Your task to perform on an android device: Open the phone app and click the voicemail tab. Image 0: 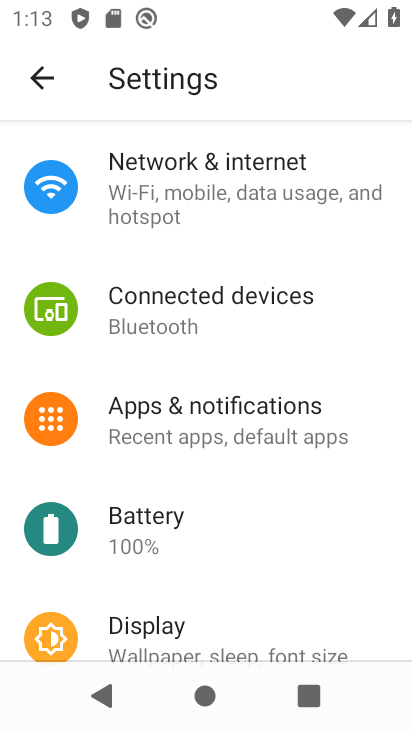
Step 0: press home button
Your task to perform on an android device: Open the phone app and click the voicemail tab. Image 1: 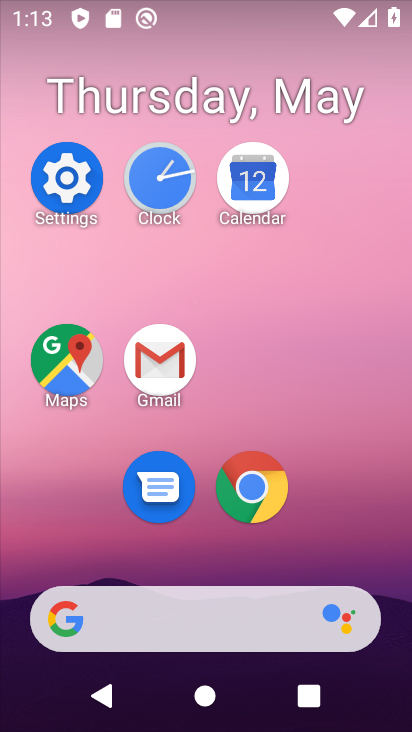
Step 1: drag from (230, 559) to (273, 150)
Your task to perform on an android device: Open the phone app and click the voicemail tab. Image 2: 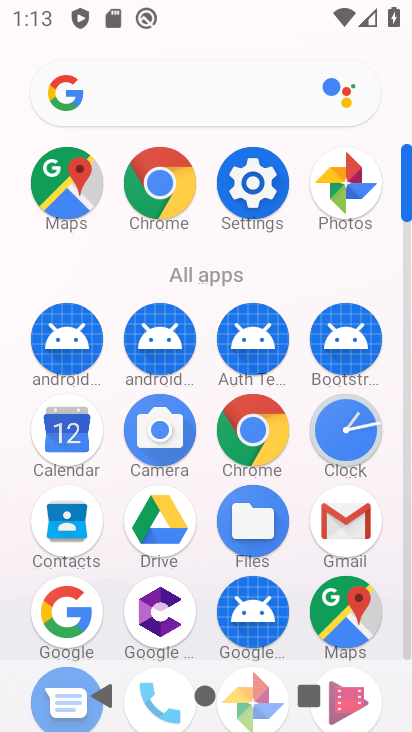
Step 2: drag from (198, 556) to (231, 232)
Your task to perform on an android device: Open the phone app and click the voicemail tab. Image 3: 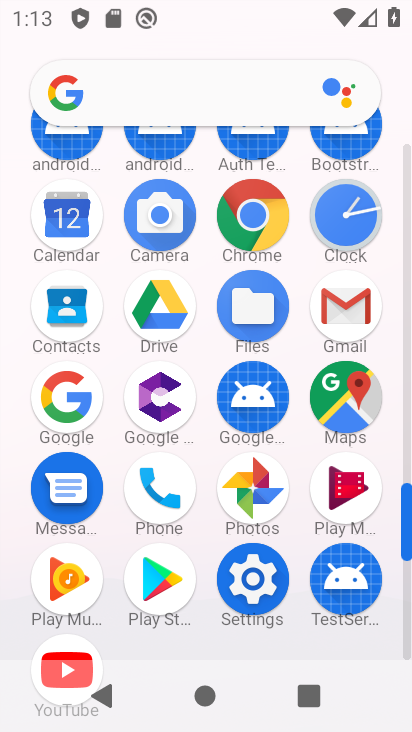
Step 3: click (157, 499)
Your task to perform on an android device: Open the phone app and click the voicemail tab. Image 4: 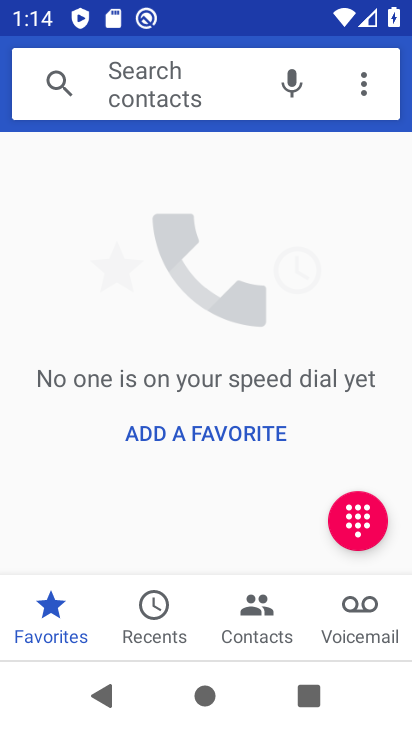
Step 4: click (362, 617)
Your task to perform on an android device: Open the phone app and click the voicemail tab. Image 5: 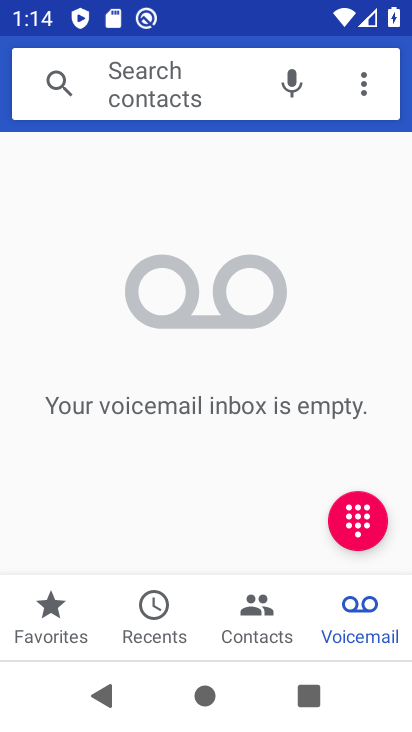
Step 5: task complete